Your task to perform on an android device: Show me the alarms in the clock app Image 0: 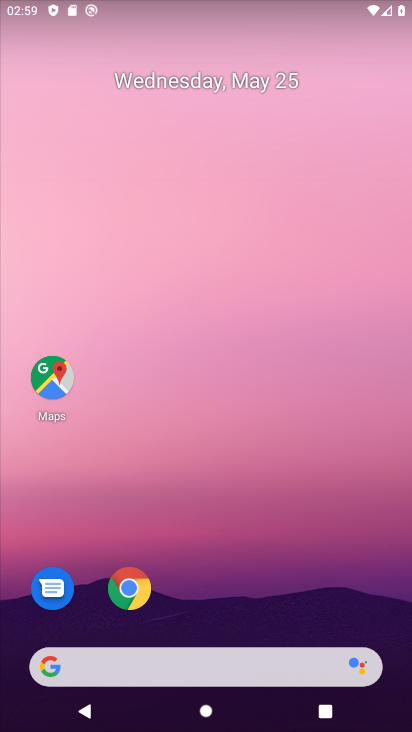
Step 0: drag from (253, 606) to (249, 245)
Your task to perform on an android device: Show me the alarms in the clock app Image 1: 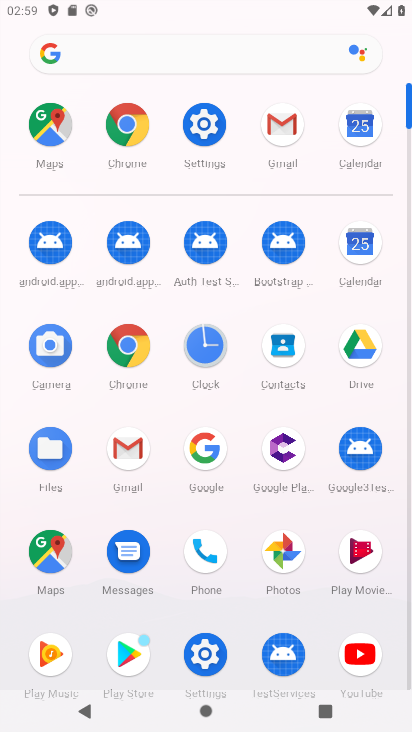
Step 1: click (206, 334)
Your task to perform on an android device: Show me the alarms in the clock app Image 2: 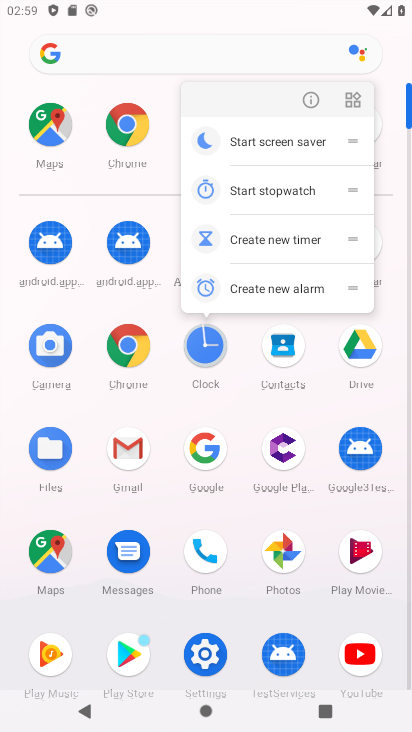
Step 2: click (206, 334)
Your task to perform on an android device: Show me the alarms in the clock app Image 3: 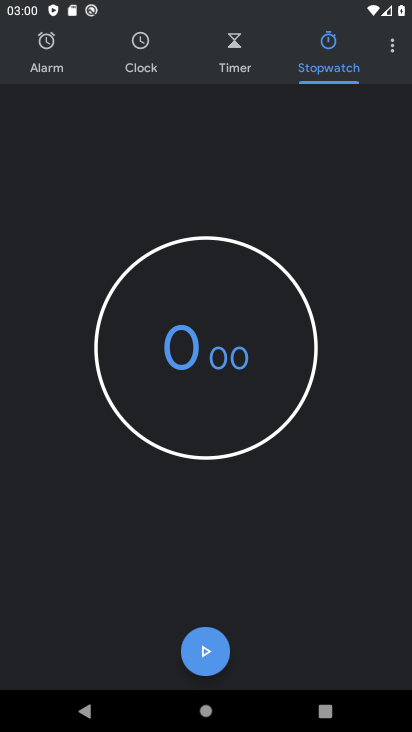
Step 3: click (35, 65)
Your task to perform on an android device: Show me the alarms in the clock app Image 4: 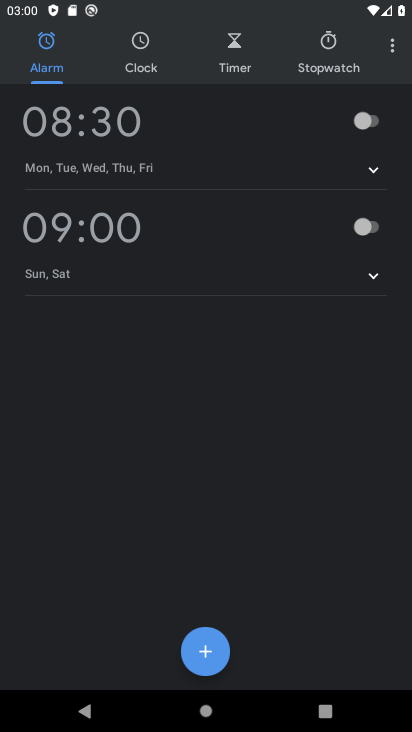
Step 4: task complete